Your task to perform on an android device: make emails show in primary in the gmail app Image 0: 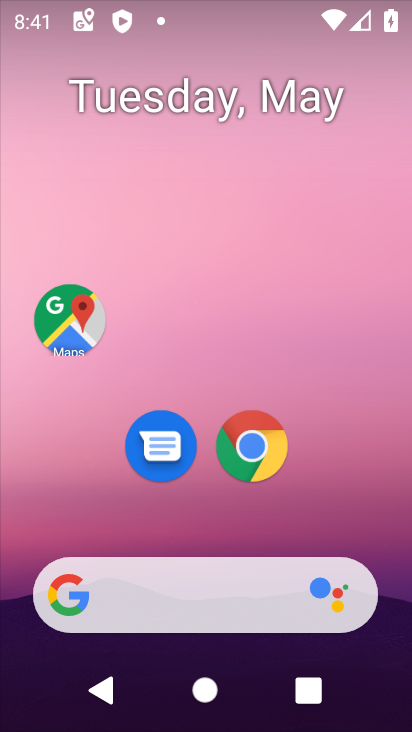
Step 0: drag from (366, 559) to (344, 9)
Your task to perform on an android device: make emails show in primary in the gmail app Image 1: 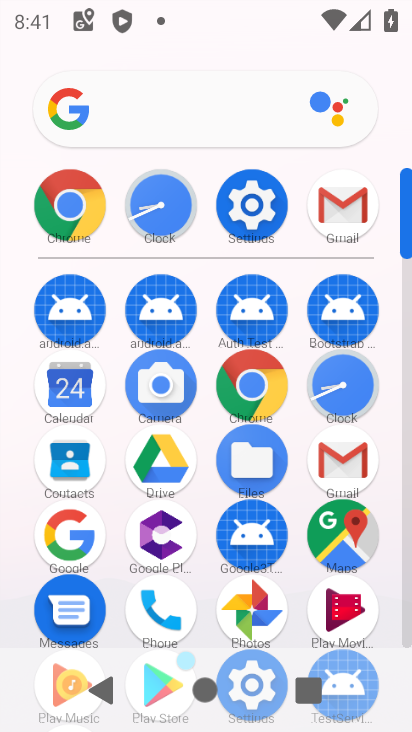
Step 1: click (329, 213)
Your task to perform on an android device: make emails show in primary in the gmail app Image 2: 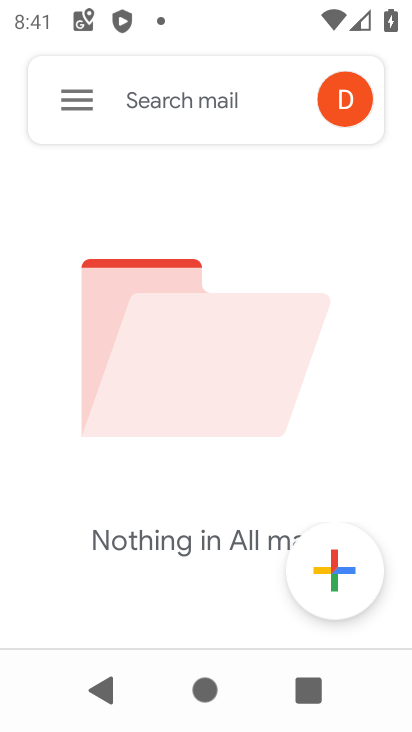
Step 2: click (70, 102)
Your task to perform on an android device: make emails show in primary in the gmail app Image 3: 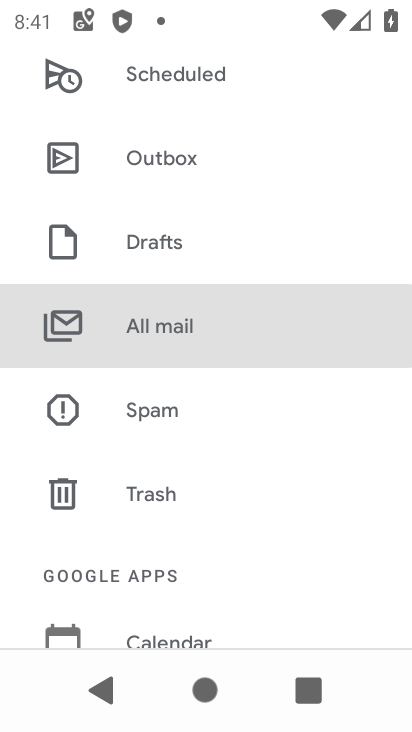
Step 3: drag from (249, 485) to (219, 97)
Your task to perform on an android device: make emails show in primary in the gmail app Image 4: 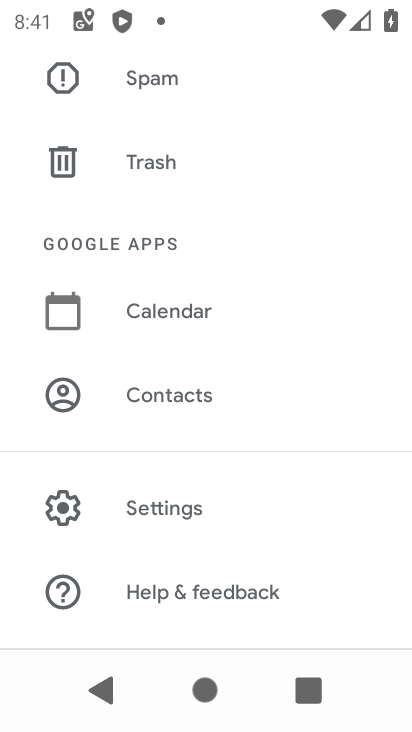
Step 4: click (164, 509)
Your task to perform on an android device: make emails show in primary in the gmail app Image 5: 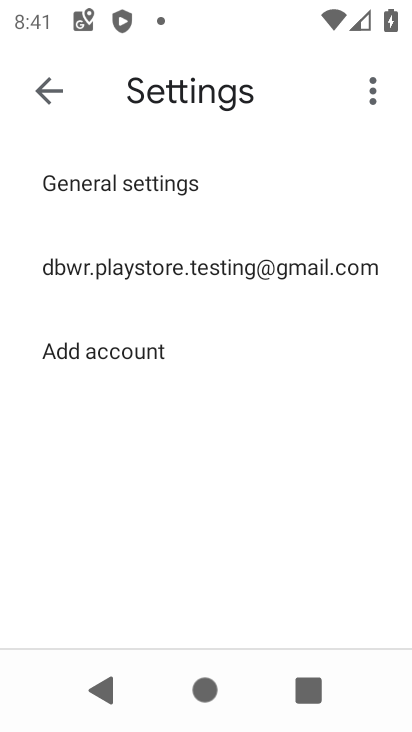
Step 5: click (136, 272)
Your task to perform on an android device: make emails show in primary in the gmail app Image 6: 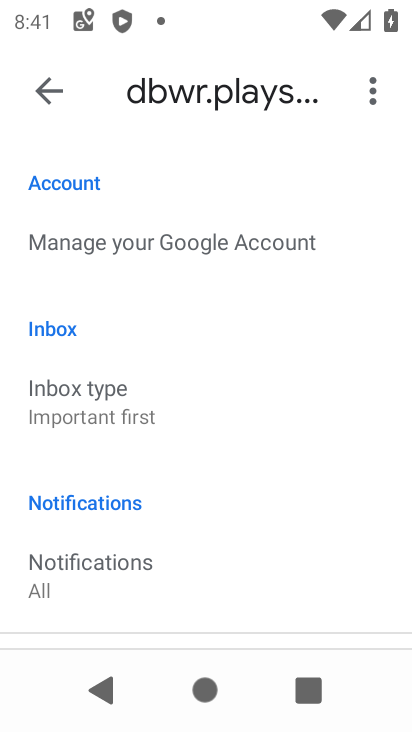
Step 6: task complete